Your task to perform on an android device: change the clock display to show seconds Image 0: 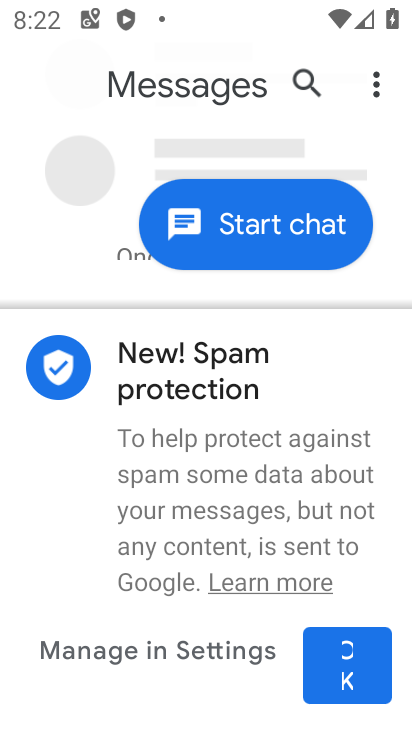
Step 0: press home button
Your task to perform on an android device: change the clock display to show seconds Image 1: 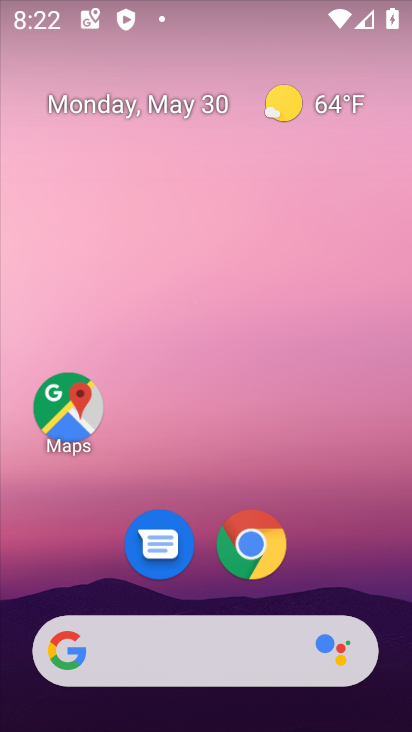
Step 1: drag from (191, 583) to (56, 31)
Your task to perform on an android device: change the clock display to show seconds Image 2: 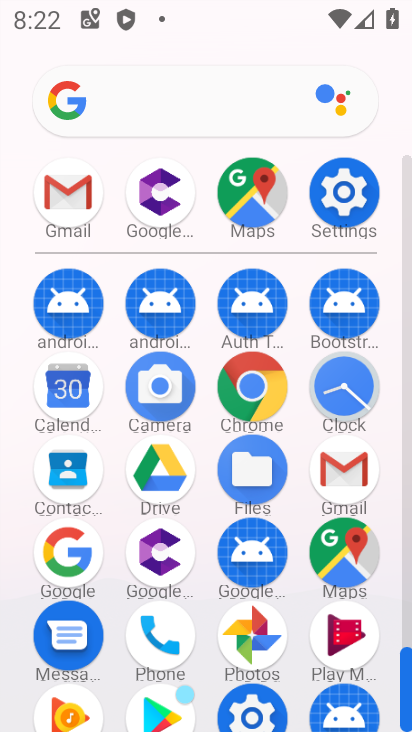
Step 2: click (335, 411)
Your task to perform on an android device: change the clock display to show seconds Image 3: 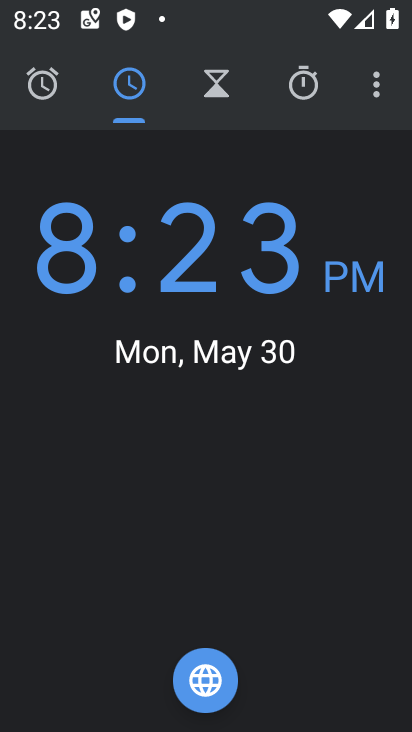
Step 3: click (372, 97)
Your task to perform on an android device: change the clock display to show seconds Image 4: 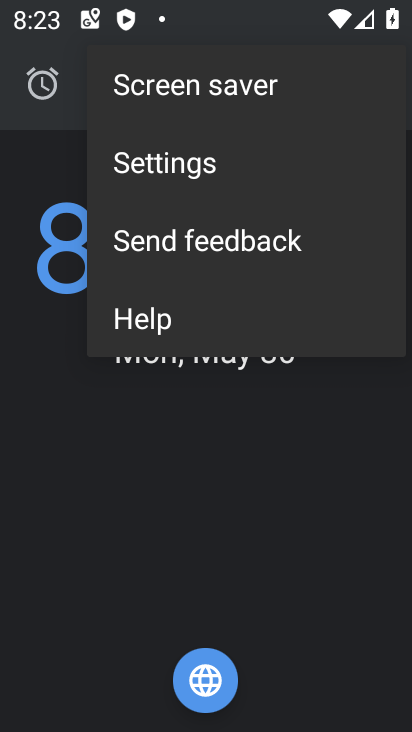
Step 4: click (174, 178)
Your task to perform on an android device: change the clock display to show seconds Image 5: 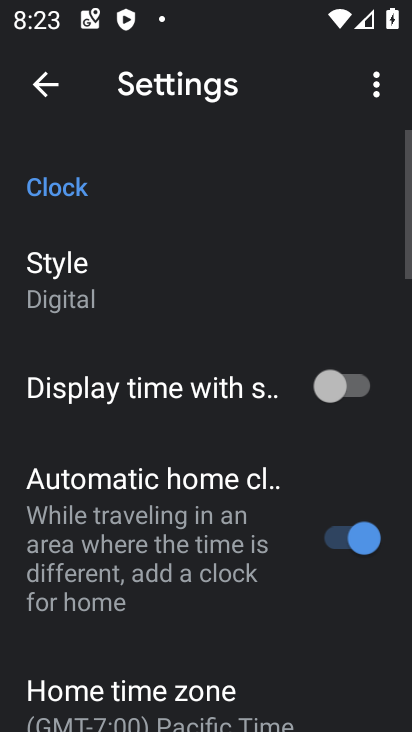
Step 5: click (347, 374)
Your task to perform on an android device: change the clock display to show seconds Image 6: 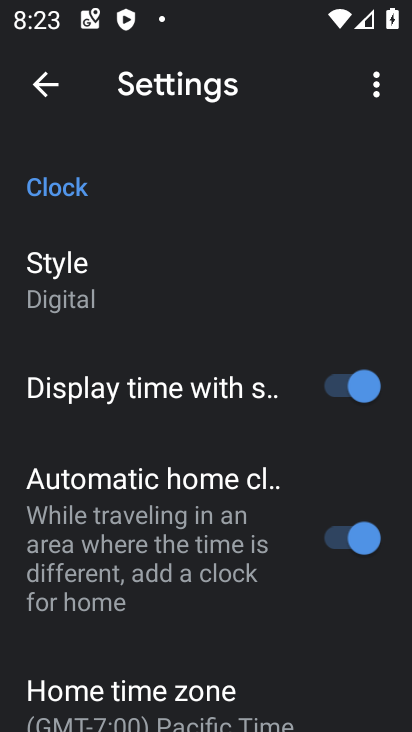
Step 6: task complete